Your task to perform on an android device: change the clock display to digital Image 0: 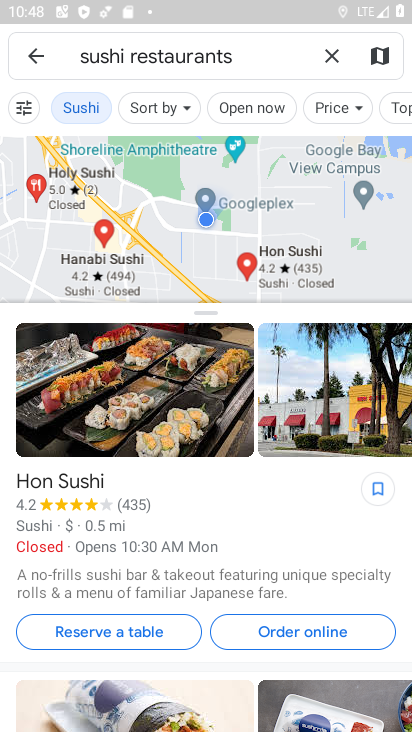
Step 0: press home button
Your task to perform on an android device: change the clock display to digital Image 1: 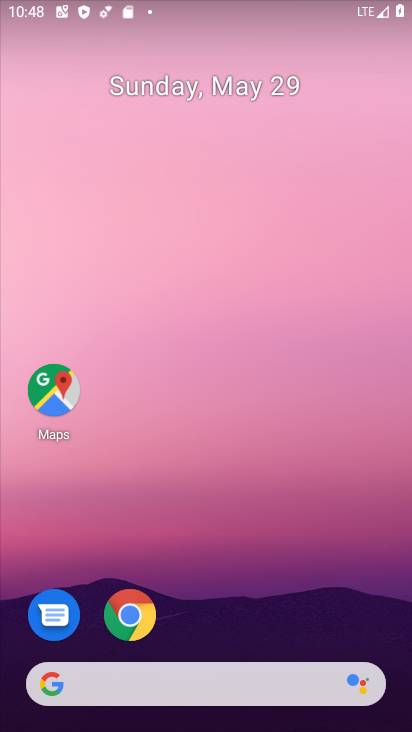
Step 1: drag from (364, 589) to (370, 243)
Your task to perform on an android device: change the clock display to digital Image 2: 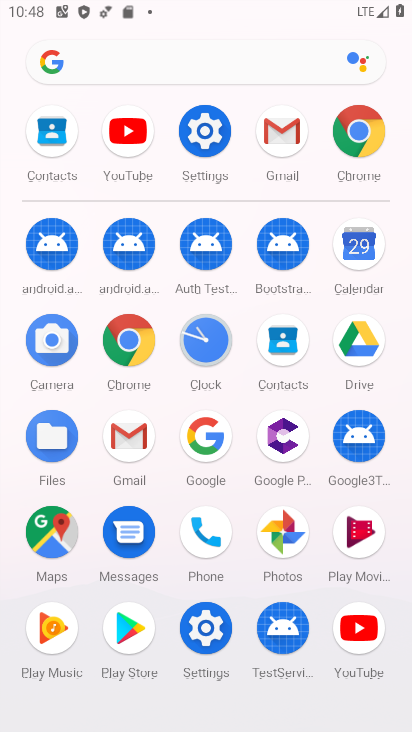
Step 2: click (221, 361)
Your task to perform on an android device: change the clock display to digital Image 3: 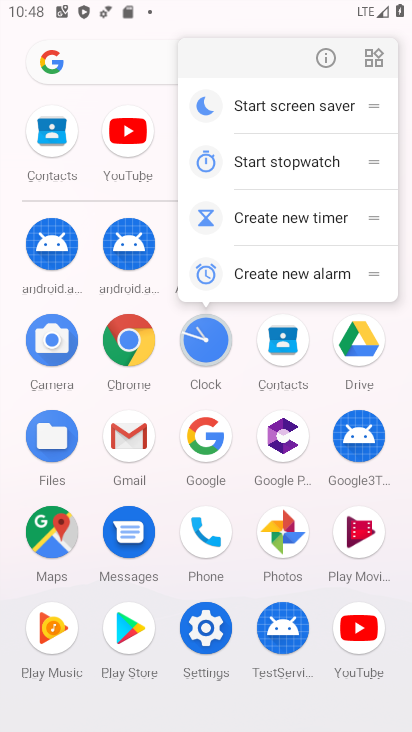
Step 3: click (221, 361)
Your task to perform on an android device: change the clock display to digital Image 4: 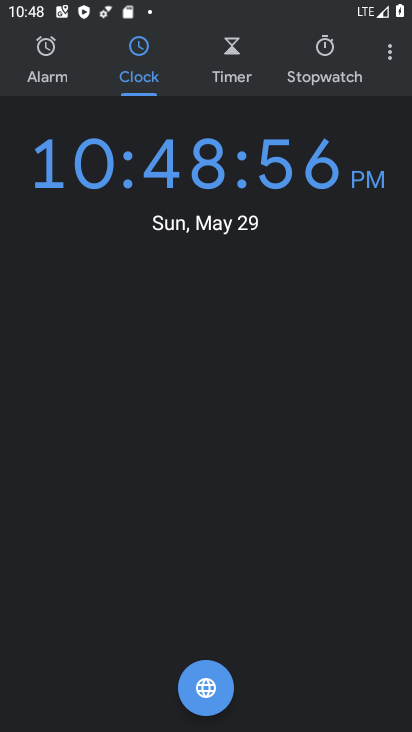
Step 4: click (387, 67)
Your task to perform on an android device: change the clock display to digital Image 5: 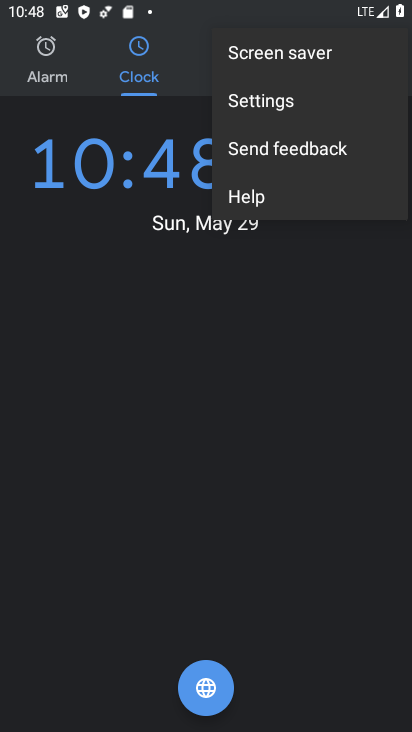
Step 5: click (312, 95)
Your task to perform on an android device: change the clock display to digital Image 6: 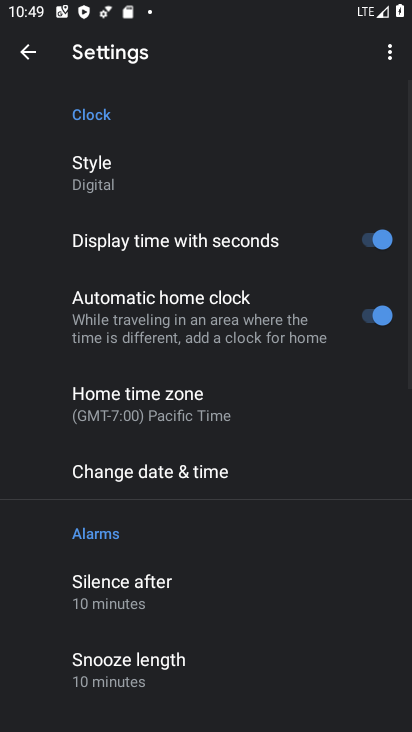
Step 6: drag from (295, 541) to (309, 455)
Your task to perform on an android device: change the clock display to digital Image 7: 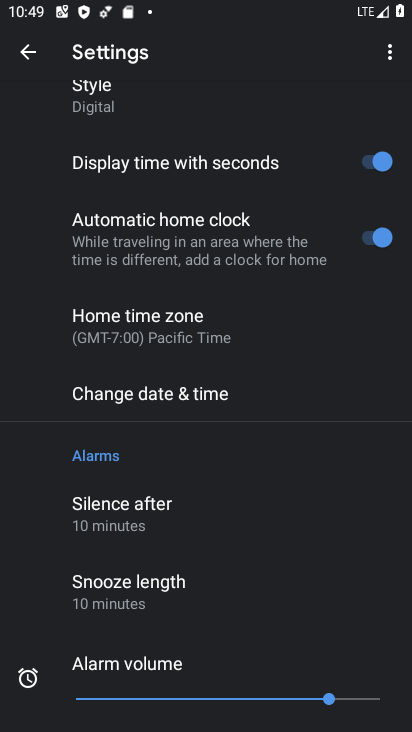
Step 7: drag from (296, 584) to (302, 486)
Your task to perform on an android device: change the clock display to digital Image 8: 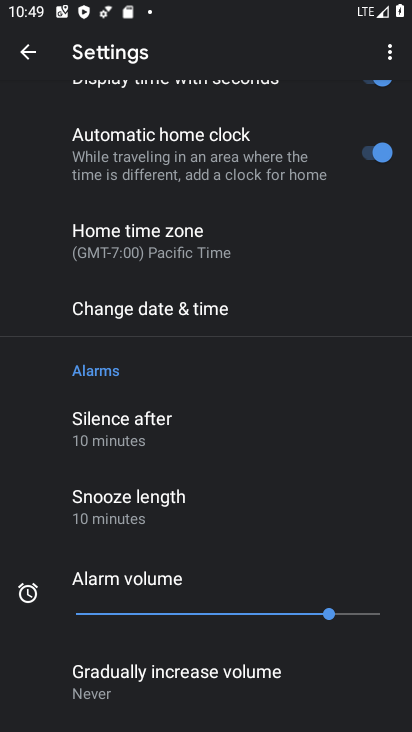
Step 8: drag from (303, 601) to (308, 516)
Your task to perform on an android device: change the clock display to digital Image 9: 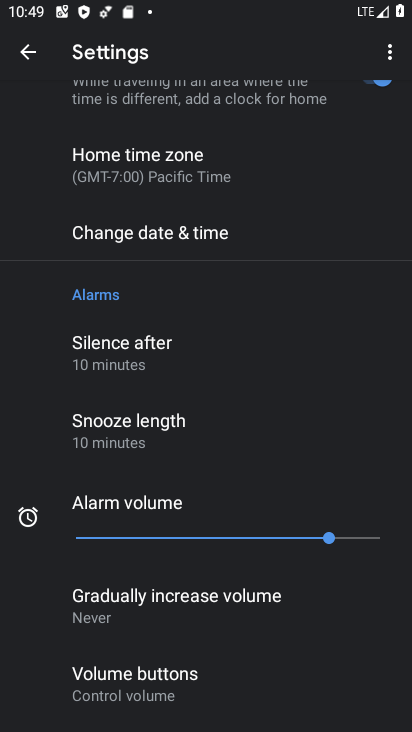
Step 9: click (306, 589)
Your task to perform on an android device: change the clock display to digital Image 10: 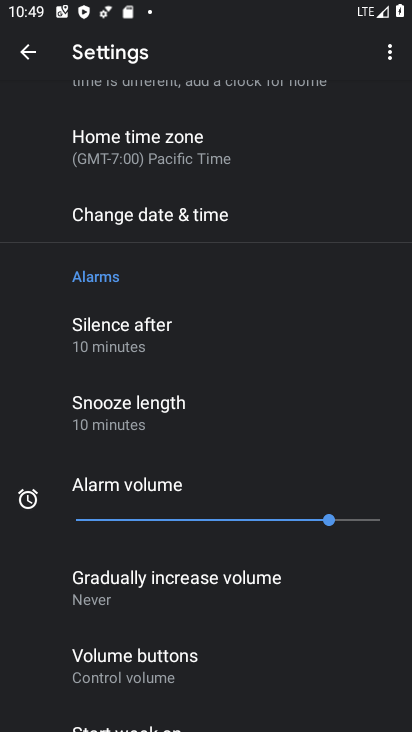
Step 10: task complete